Your task to perform on an android device: Do I have any events this weekend? Image 0: 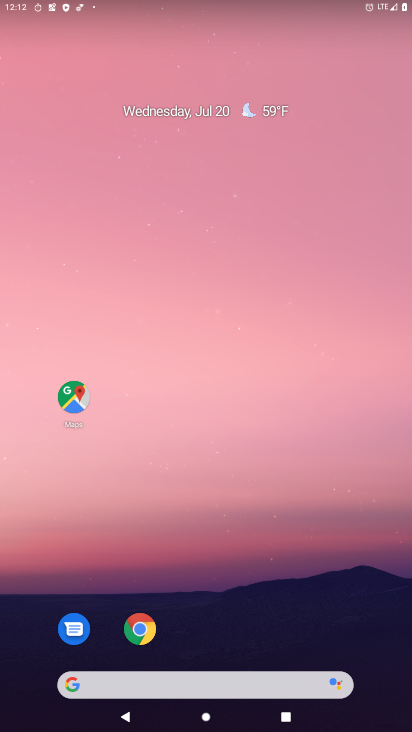
Step 0: drag from (324, 606) to (388, 1)
Your task to perform on an android device: Do I have any events this weekend? Image 1: 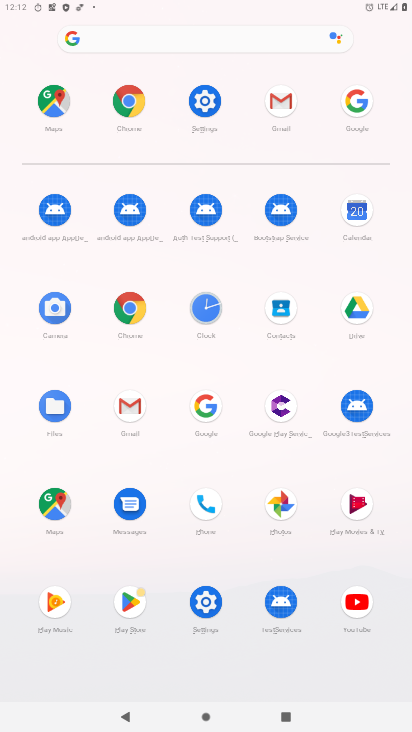
Step 1: click (350, 215)
Your task to perform on an android device: Do I have any events this weekend? Image 2: 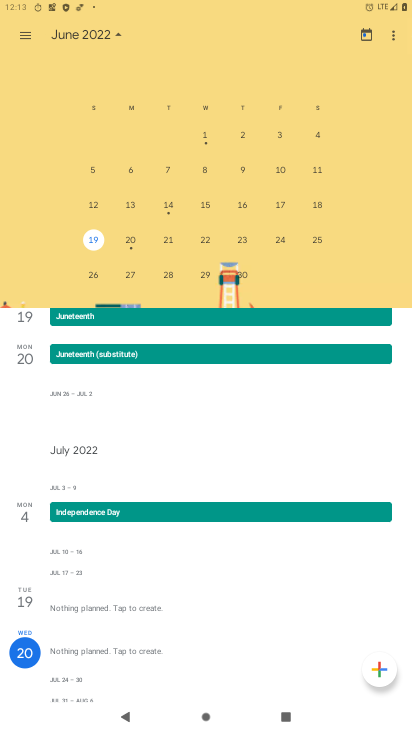
Step 2: task complete